Your task to perform on an android device: Open ESPN.com Image 0: 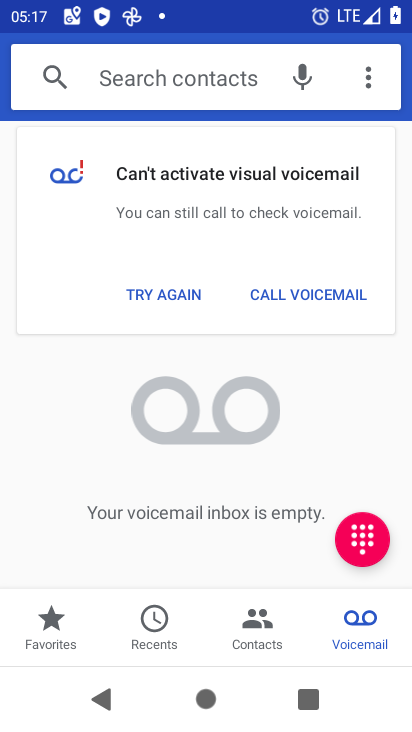
Step 0: press home button
Your task to perform on an android device: Open ESPN.com Image 1: 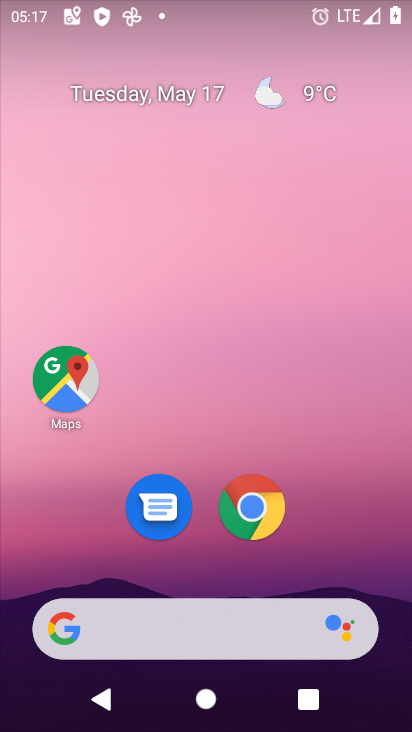
Step 1: click (256, 516)
Your task to perform on an android device: Open ESPN.com Image 2: 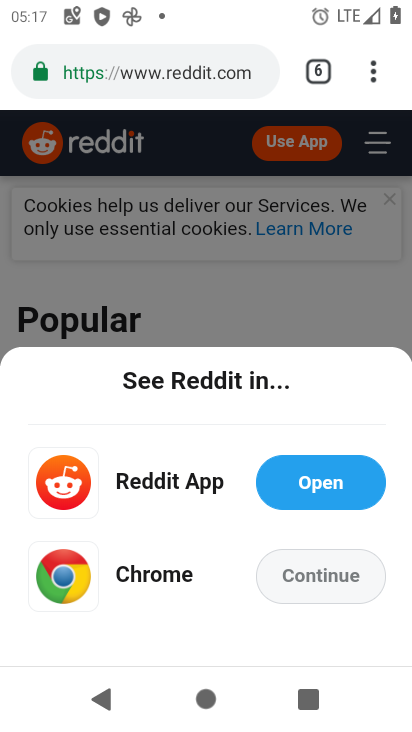
Step 2: click (317, 62)
Your task to perform on an android device: Open ESPN.com Image 3: 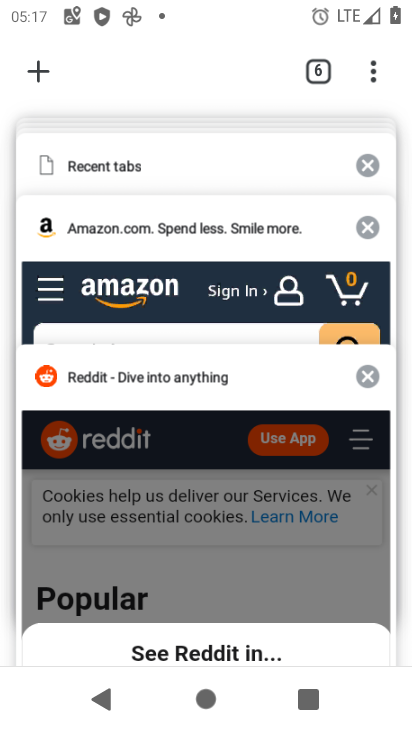
Step 3: click (27, 67)
Your task to perform on an android device: Open ESPN.com Image 4: 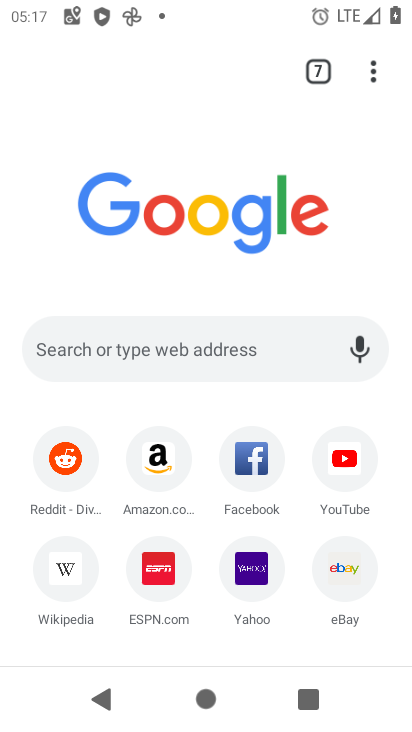
Step 4: click (154, 574)
Your task to perform on an android device: Open ESPN.com Image 5: 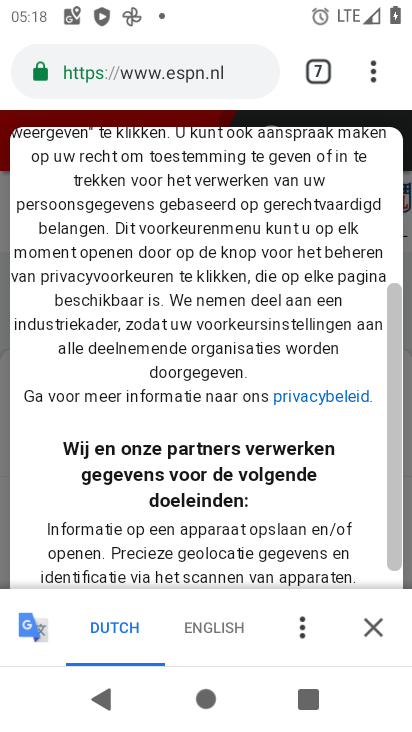
Step 5: task complete